Your task to perform on an android device: toggle priority inbox in the gmail app Image 0: 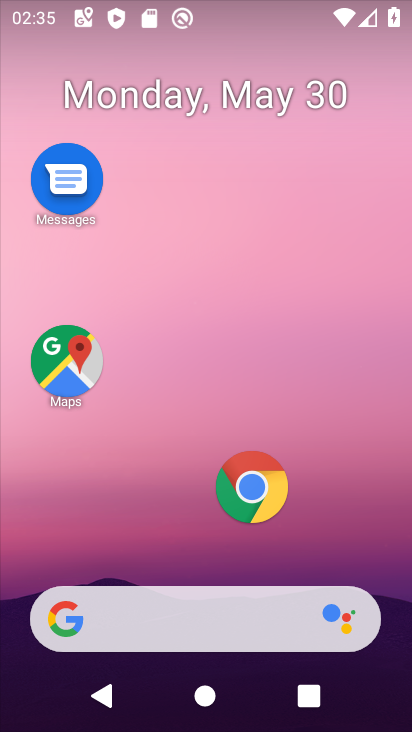
Step 0: drag from (194, 550) to (164, 18)
Your task to perform on an android device: toggle priority inbox in the gmail app Image 1: 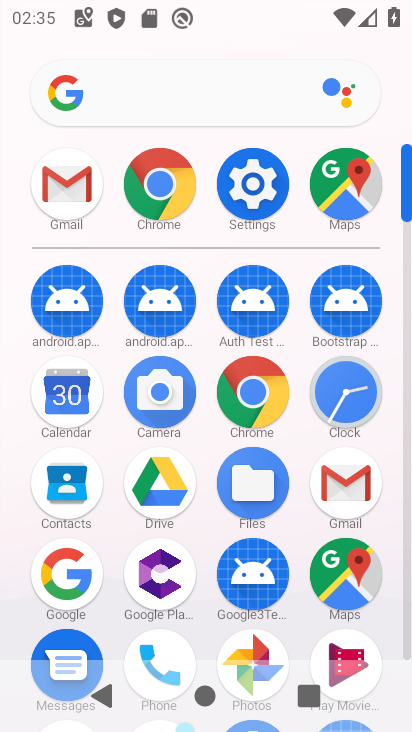
Step 1: click (76, 199)
Your task to perform on an android device: toggle priority inbox in the gmail app Image 2: 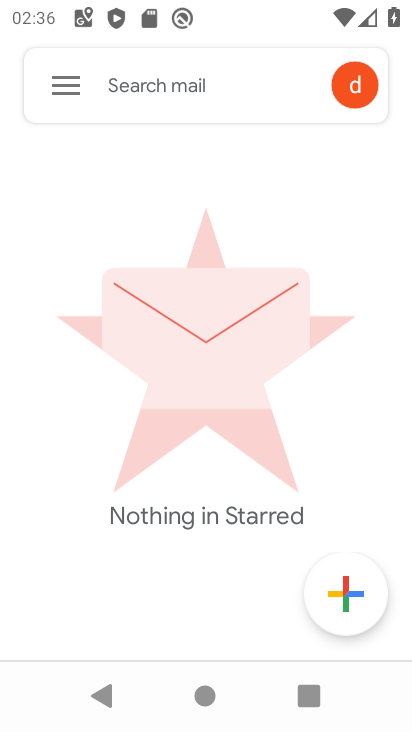
Step 2: click (54, 87)
Your task to perform on an android device: toggle priority inbox in the gmail app Image 3: 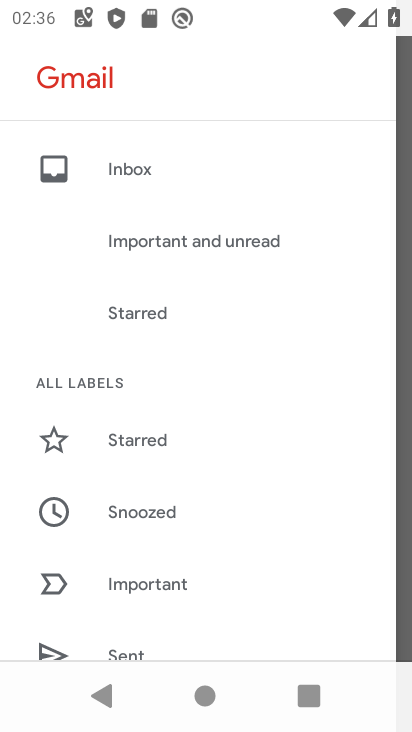
Step 3: drag from (150, 577) to (153, 220)
Your task to perform on an android device: toggle priority inbox in the gmail app Image 4: 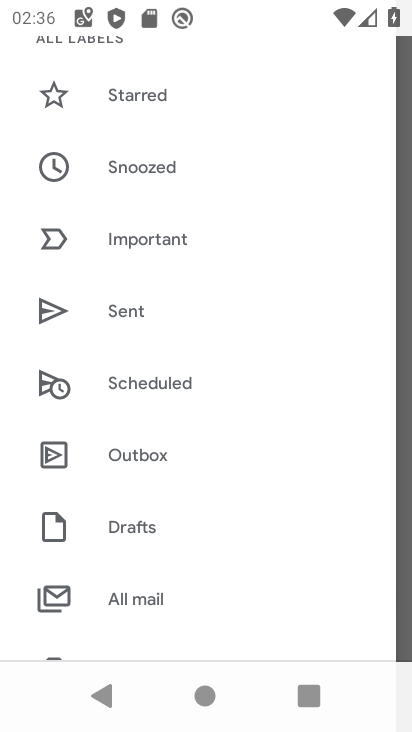
Step 4: drag from (149, 624) to (158, 178)
Your task to perform on an android device: toggle priority inbox in the gmail app Image 5: 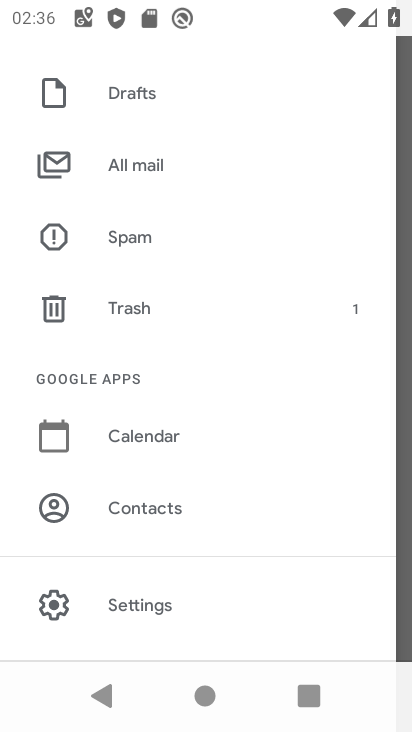
Step 5: click (144, 607)
Your task to perform on an android device: toggle priority inbox in the gmail app Image 6: 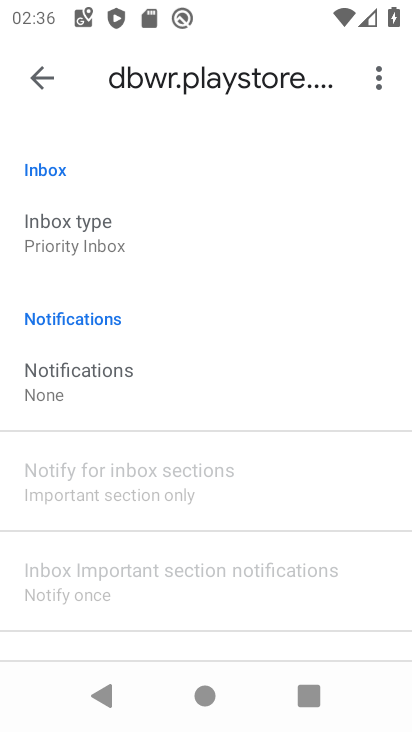
Step 6: click (70, 245)
Your task to perform on an android device: toggle priority inbox in the gmail app Image 7: 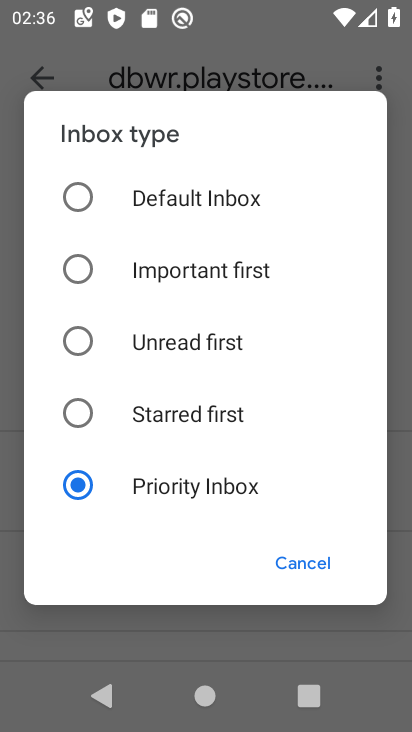
Step 7: click (81, 196)
Your task to perform on an android device: toggle priority inbox in the gmail app Image 8: 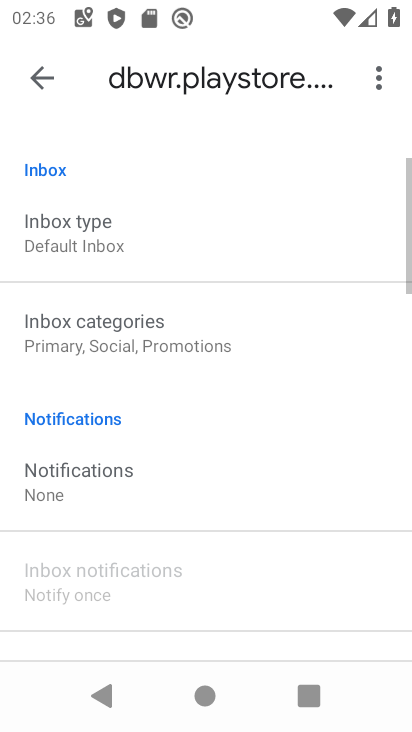
Step 8: task complete